Your task to perform on an android device: Open Google Chrome and open the bookmarks view Image 0: 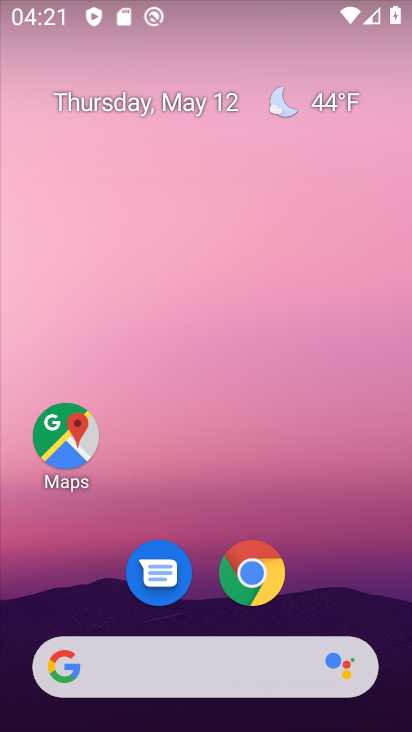
Step 0: click (251, 569)
Your task to perform on an android device: Open Google Chrome and open the bookmarks view Image 1: 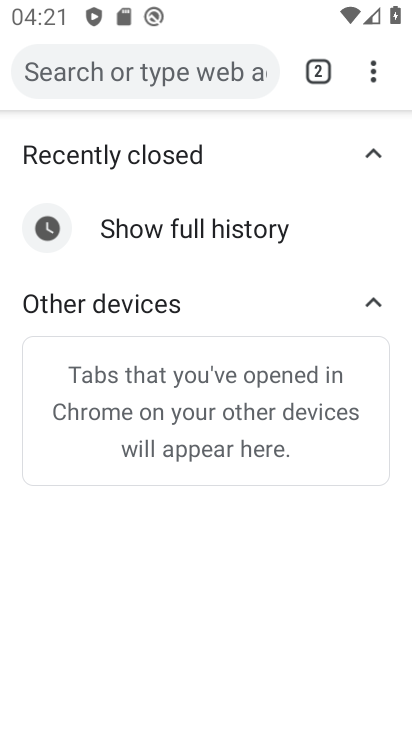
Step 1: click (374, 71)
Your task to perform on an android device: Open Google Chrome and open the bookmarks view Image 2: 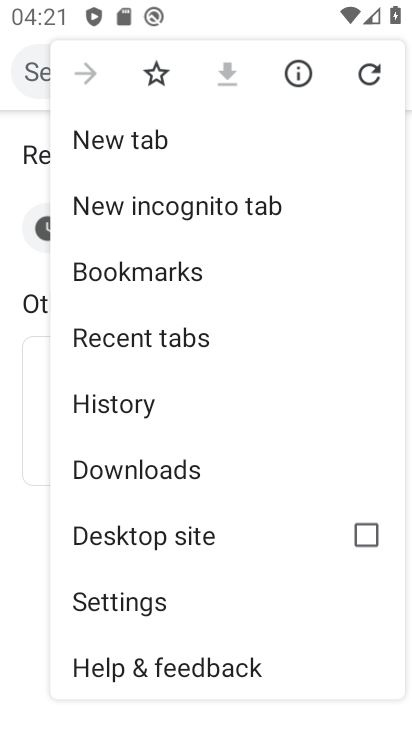
Step 2: click (162, 277)
Your task to perform on an android device: Open Google Chrome and open the bookmarks view Image 3: 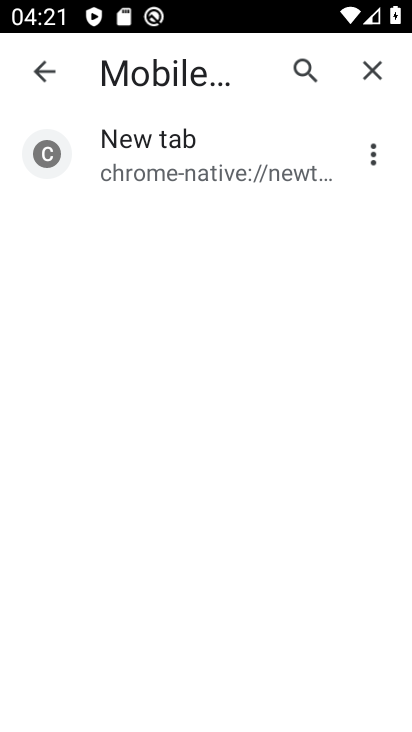
Step 3: task complete